Your task to perform on an android device: Open display settings Image 0: 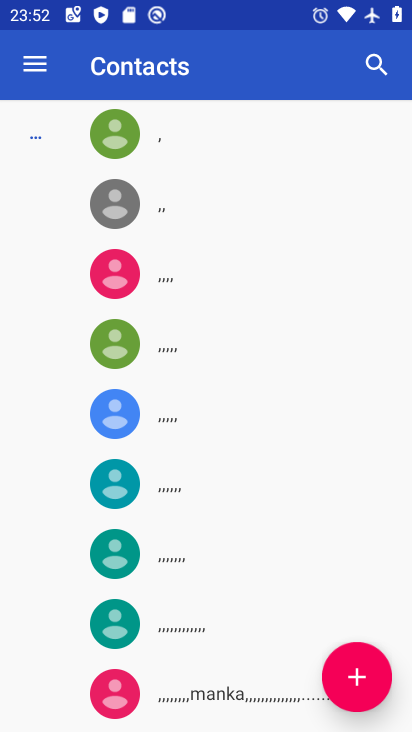
Step 0: press back button
Your task to perform on an android device: Open display settings Image 1: 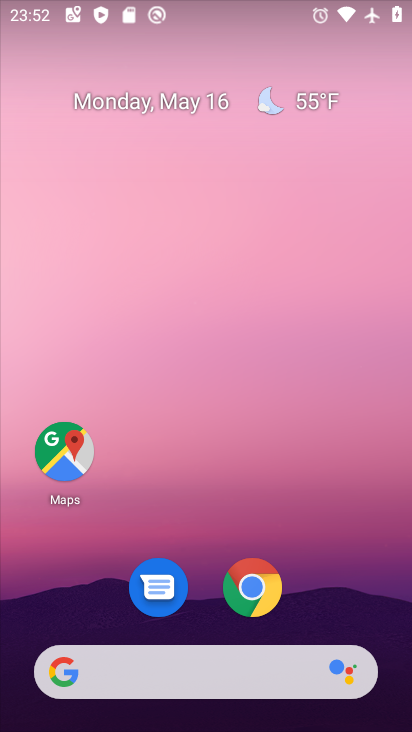
Step 1: drag from (349, 586) to (291, 46)
Your task to perform on an android device: Open display settings Image 2: 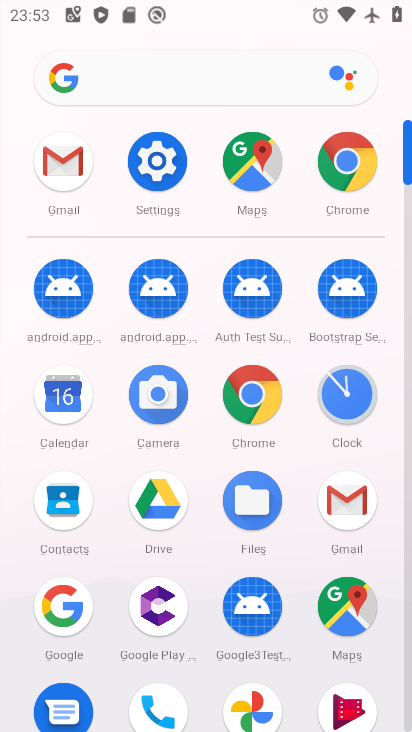
Step 2: drag from (10, 563) to (4, 266)
Your task to perform on an android device: Open display settings Image 3: 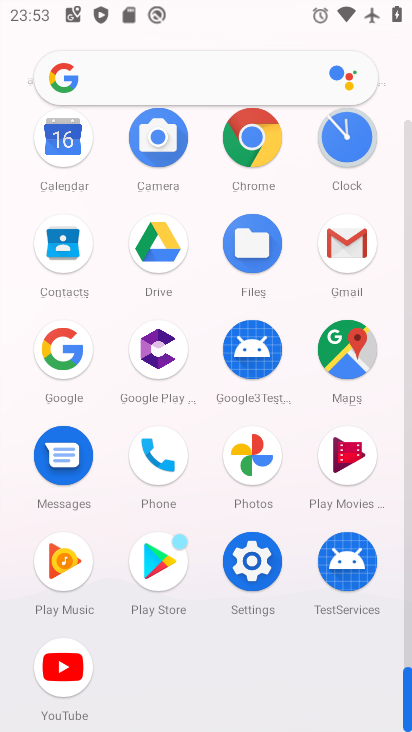
Step 3: click (250, 560)
Your task to perform on an android device: Open display settings Image 4: 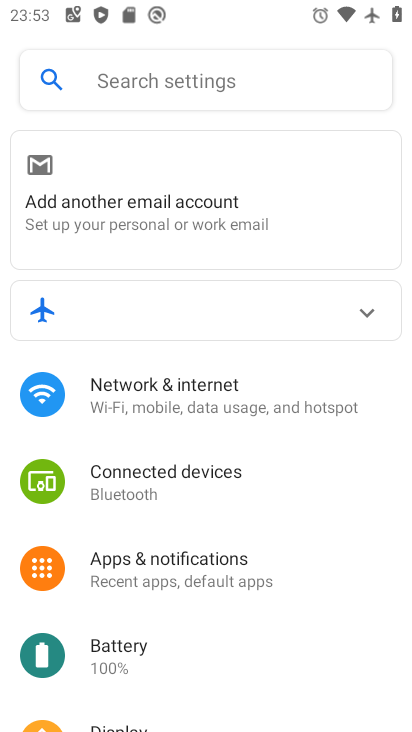
Step 4: drag from (296, 617) to (278, 205)
Your task to perform on an android device: Open display settings Image 5: 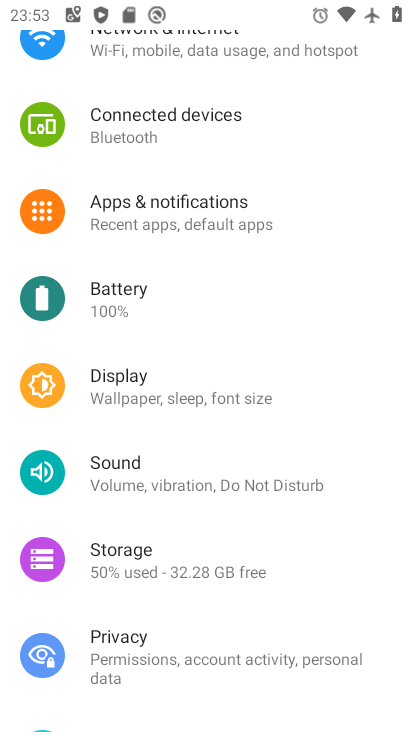
Step 5: drag from (293, 161) to (269, 135)
Your task to perform on an android device: Open display settings Image 6: 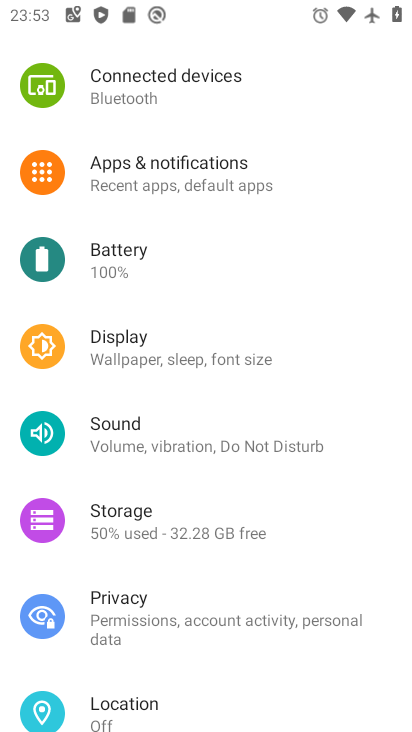
Step 6: drag from (257, 563) to (249, 142)
Your task to perform on an android device: Open display settings Image 7: 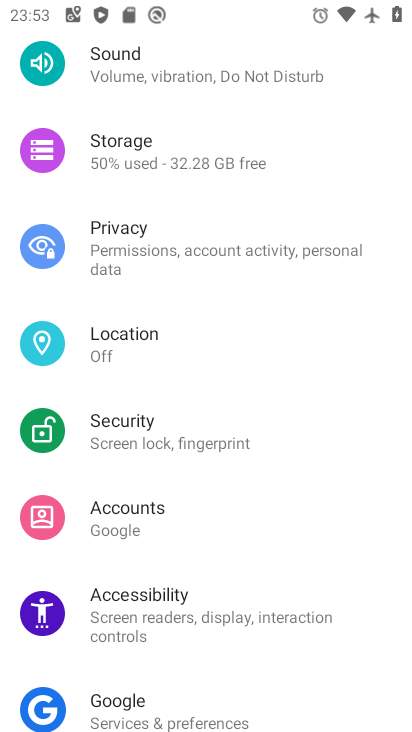
Step 7: drag from (242, 594) to (256, 142)
Your task to perform on an android device: Open display settings Image 8: 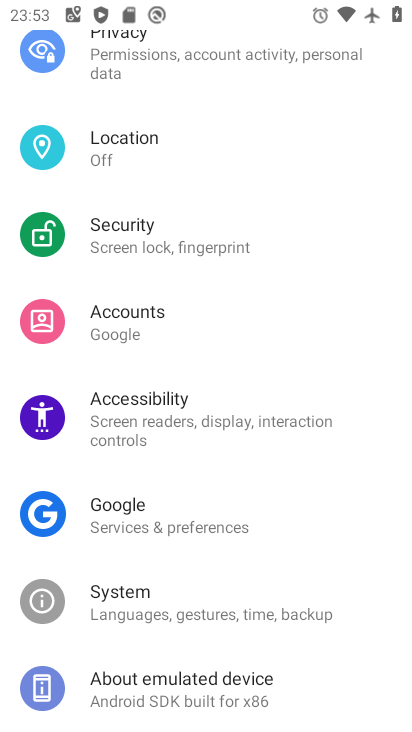
Step 8: drag from (259, 557) to (266, 278)
Your task to perform on an android device: Open display settings Image 9: 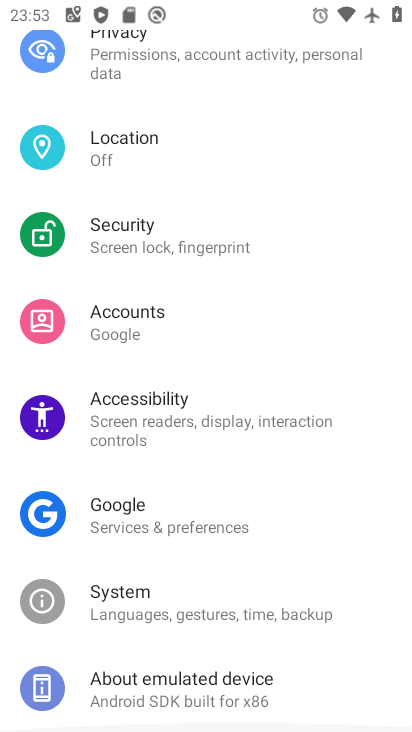
Step 9: drag from (274, 186) to (271, 620)
Your task to perform on an android device: Open display settings Image 10: 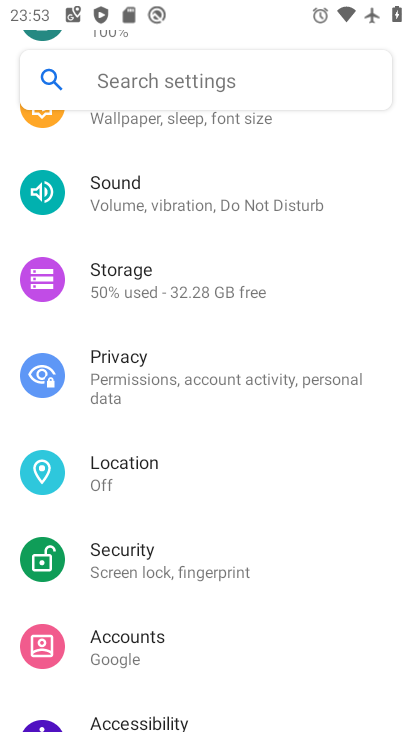
Step 10: drag from (263, 243) to (256, 626)
Your task to perform on an android device: Open display settings Image 11: 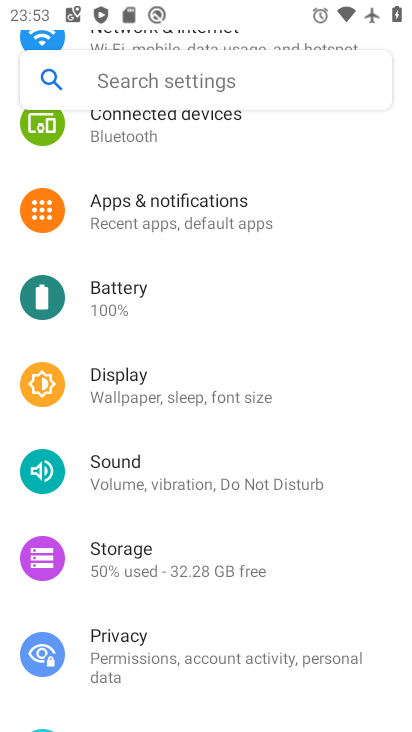
Step 11: drag from (253, 222) to (253, 605)
Your task to perform on an android device: Open display settings Image 12: 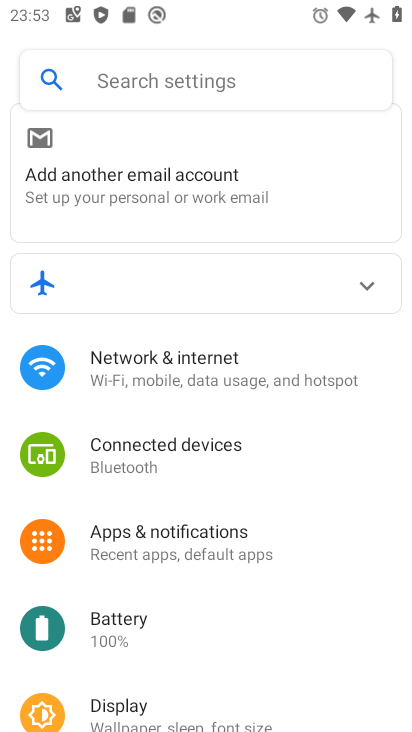
Step 12: click (162, 696)
Your task to perform on an android device: Open display settings Image 13: 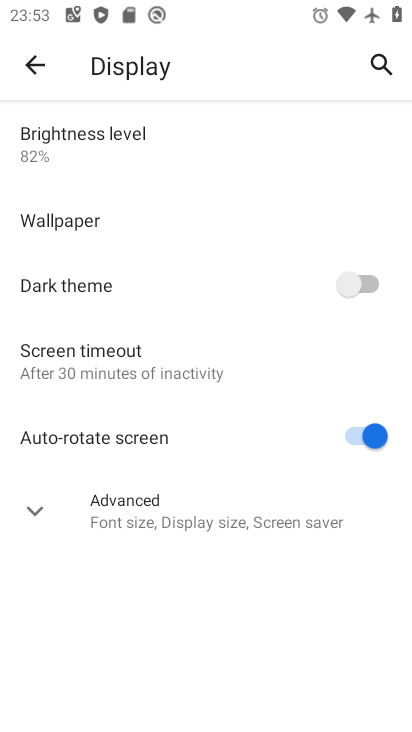
Step 13: click (47, 526)
Your task to perform on an android device: Open display settings Image 14: 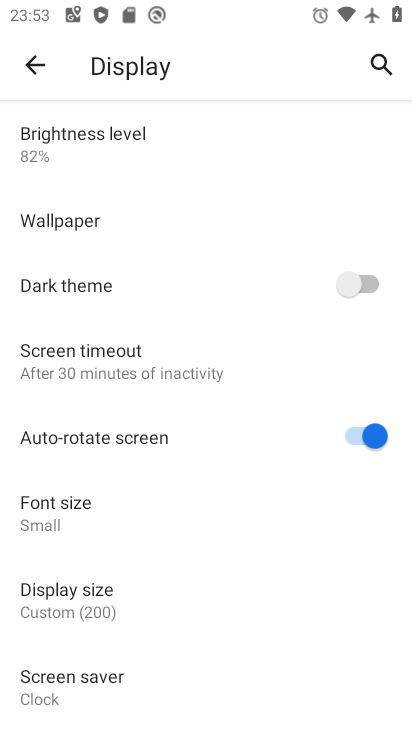
Step 14: task complete